Your task to perform on an android device: Go to network settings Image 0: 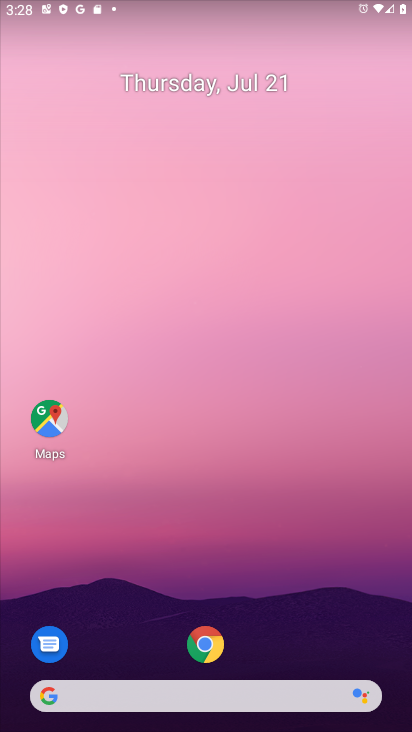
Step 0: press home button
Your task to perform on an android device: Go to network settings Image 1: 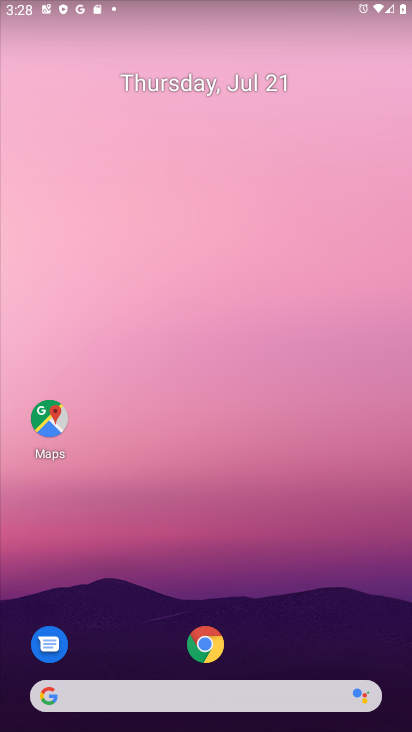
Step 1: drag from (300, 612) to (304, 74)
Your task to perform on an android device: Go to network settings Image 2: 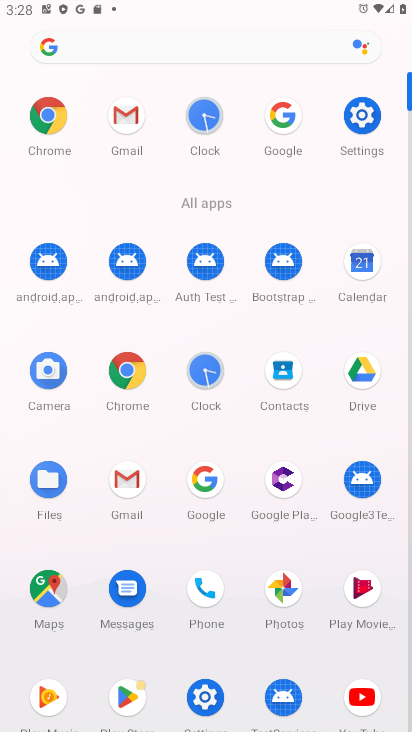
Step 2: click (369, 116)
Your task to perform on an android device: Go to network settings Image 3: 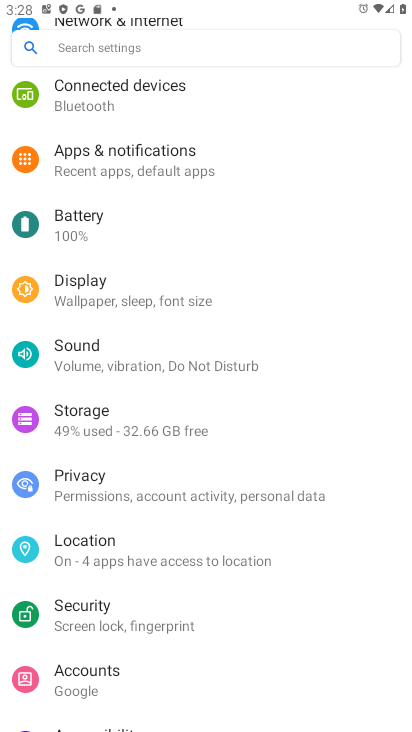
Step 3: drag from (106, 128) to (97, 512)
Your task to perform on an android device: Go to network settings Image 4: 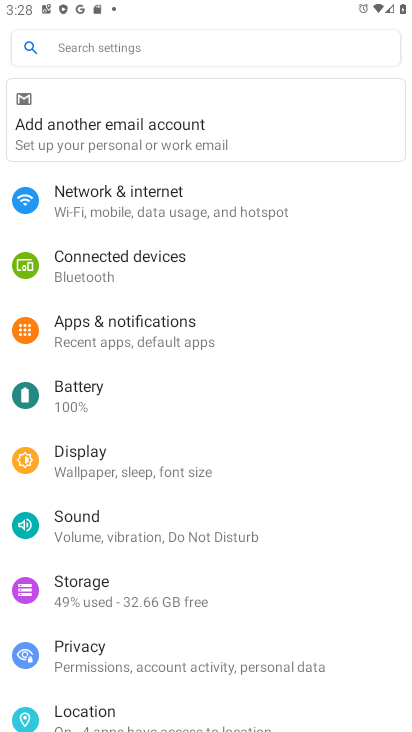
Step 4: click (124, 203)
Your task to perform on an android device: Go to network settings Image 5: 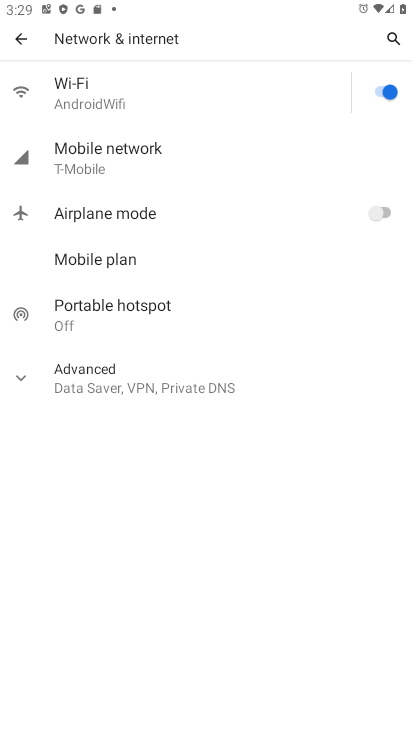
Step 5: task complete